Your task to perform on an android device: delete the emails in spam in the gmail app Image 0: 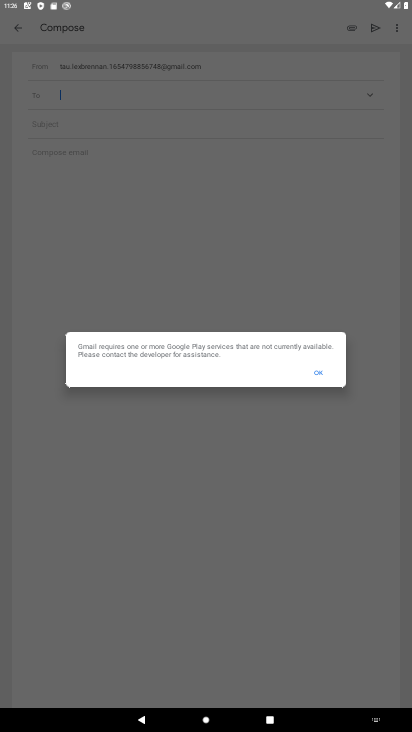
Step 0: task complete